Your task to perform on an android device: Show me the alarms in the clock app Image 0: 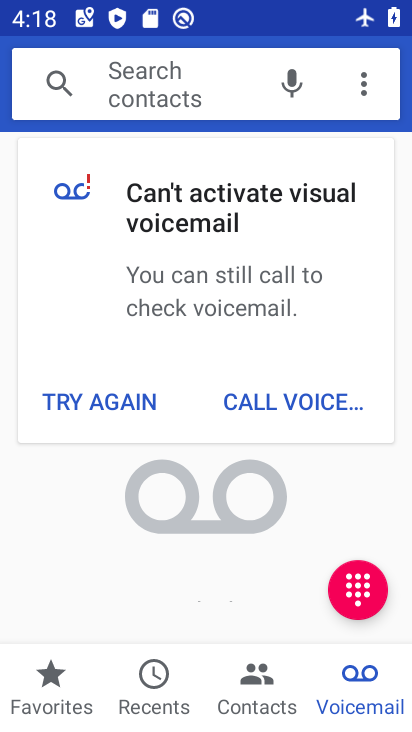
Step 0: press home button
Your task to perform on an android device: Show me the alarms in the clock app Image 1: 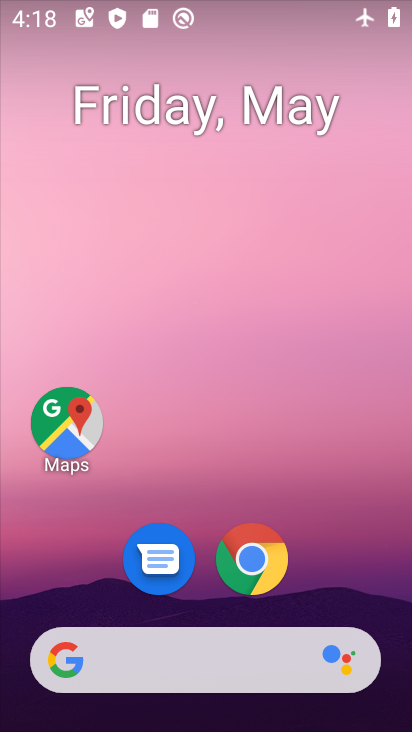
Step 1: drag from (313, 468) to (209, 39)
Your task to perform on an android device: Show me the alarms in the clock app Image 2: 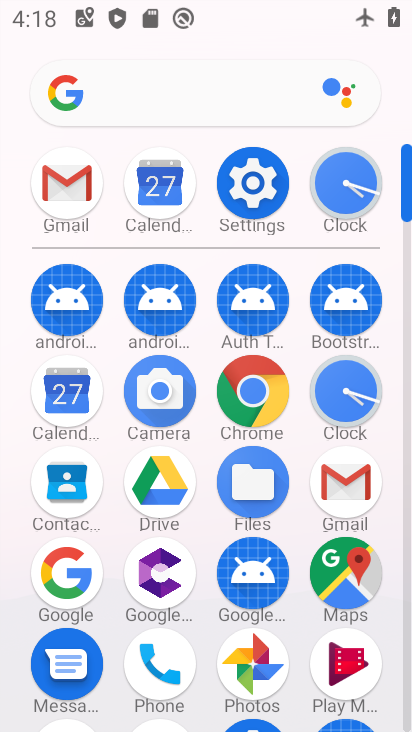
Step 2: click (318, 387)
Your task to perform on an android device: Show me the alarms in the clock app Image 3: 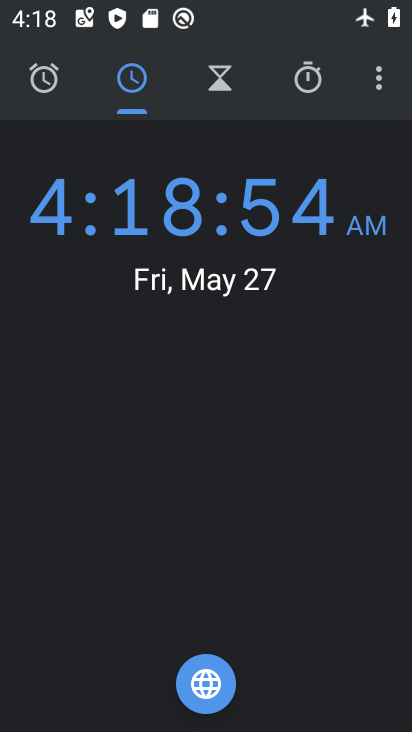
Step 3: click (42, 85)
Your task to perform on an android device: Show me the alarms in the clock app Image 4: 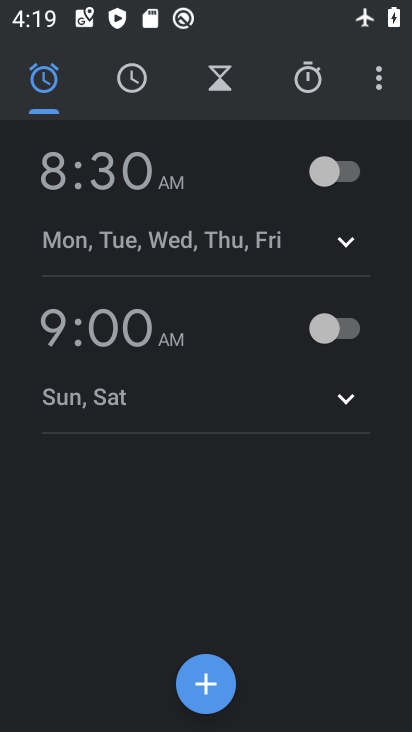
Step 4: task complete